Your task to perform on an android device: What's on my calendar today? Image 0: 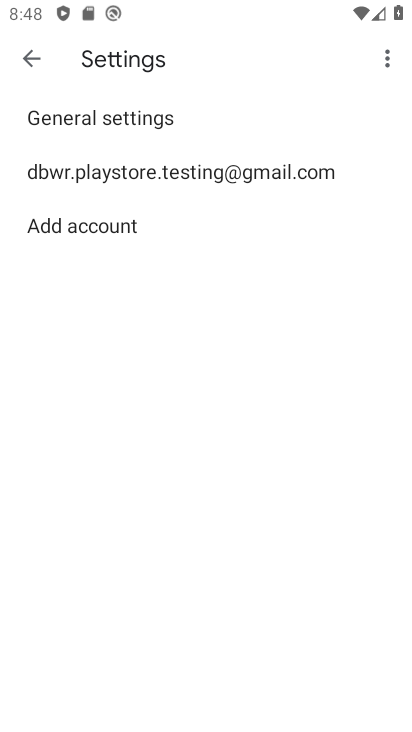
Step 0: press home button
Your task to perform on an android device: What's on my calendar today? Image 1: 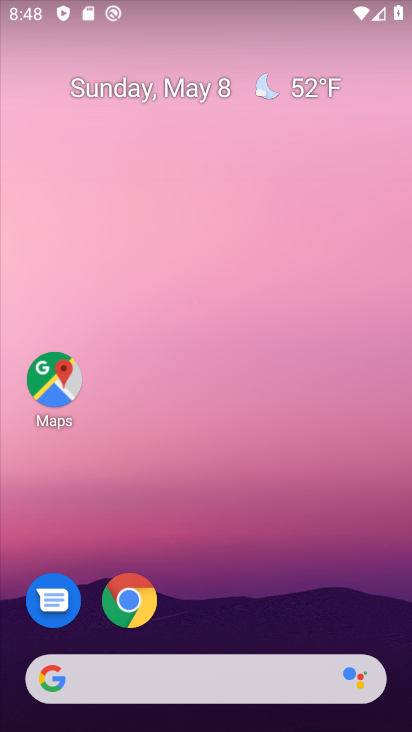
Step 1: drag from (260, 574) to (274, 52)
Your task to perform on an android device: What's on my calendar today? Image 2: 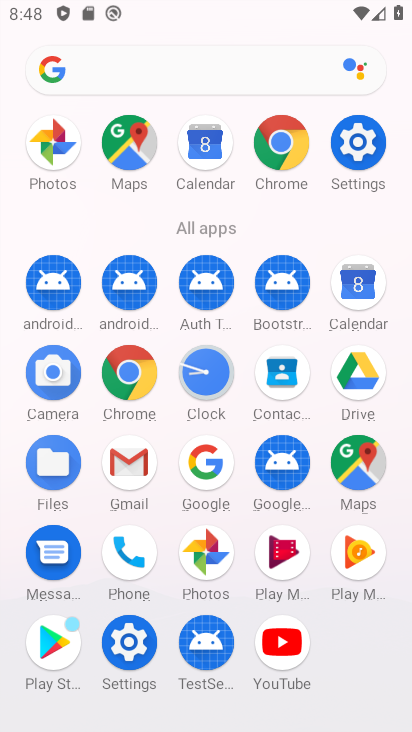
Step 2: click (362, 294)
Your task to perform on an android device: What's on my calendar today? Image 3: 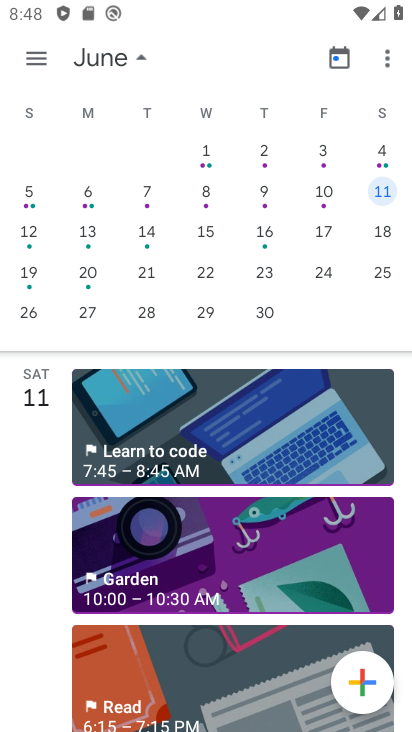
Step 3: drag from (103, 272) to (412, 282)
Your task to perform on an android device: What's on my calendar today? Image 4: 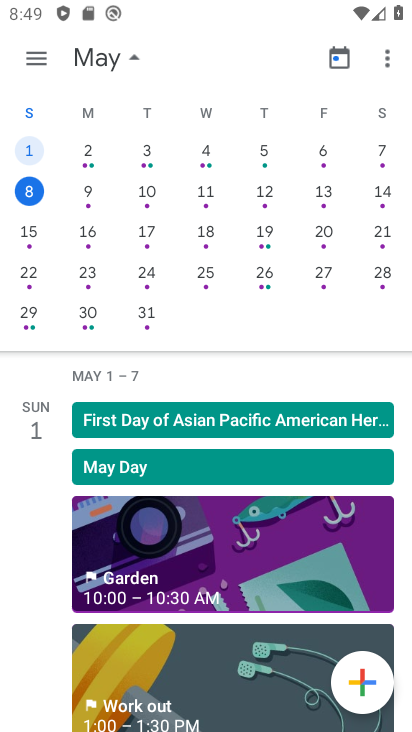
Step 4: click (28, 181)
Your task to perform on an android device: What's on my calendar today? Image 5: 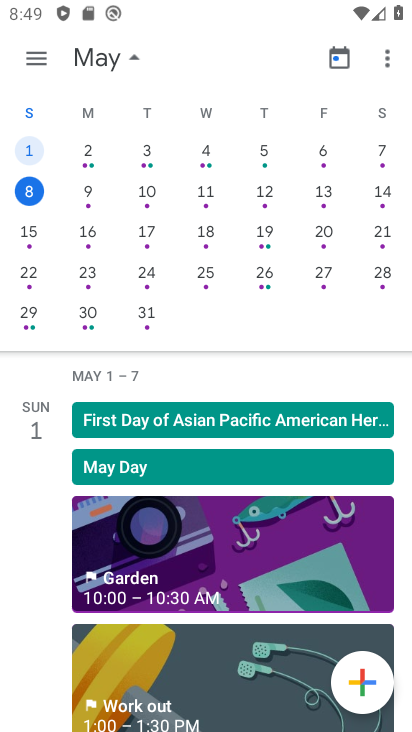
Step 5: click (31, 193)
Your task to perform on an android device: What's on my calendar today? Image 6: 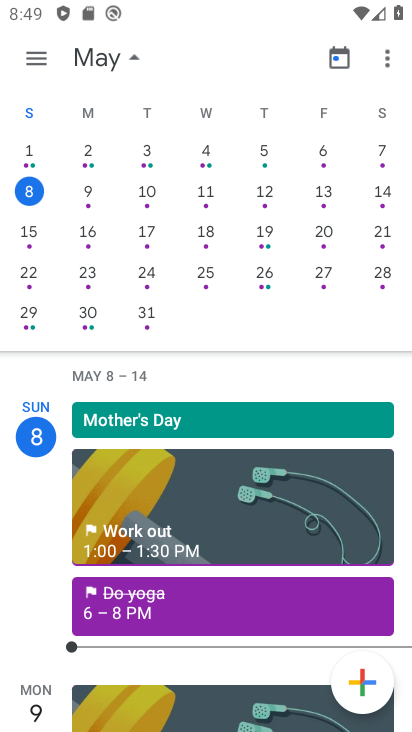
Step 6: task complete